Your task to perform on an android device: open app "Google Chrome" Image 0: 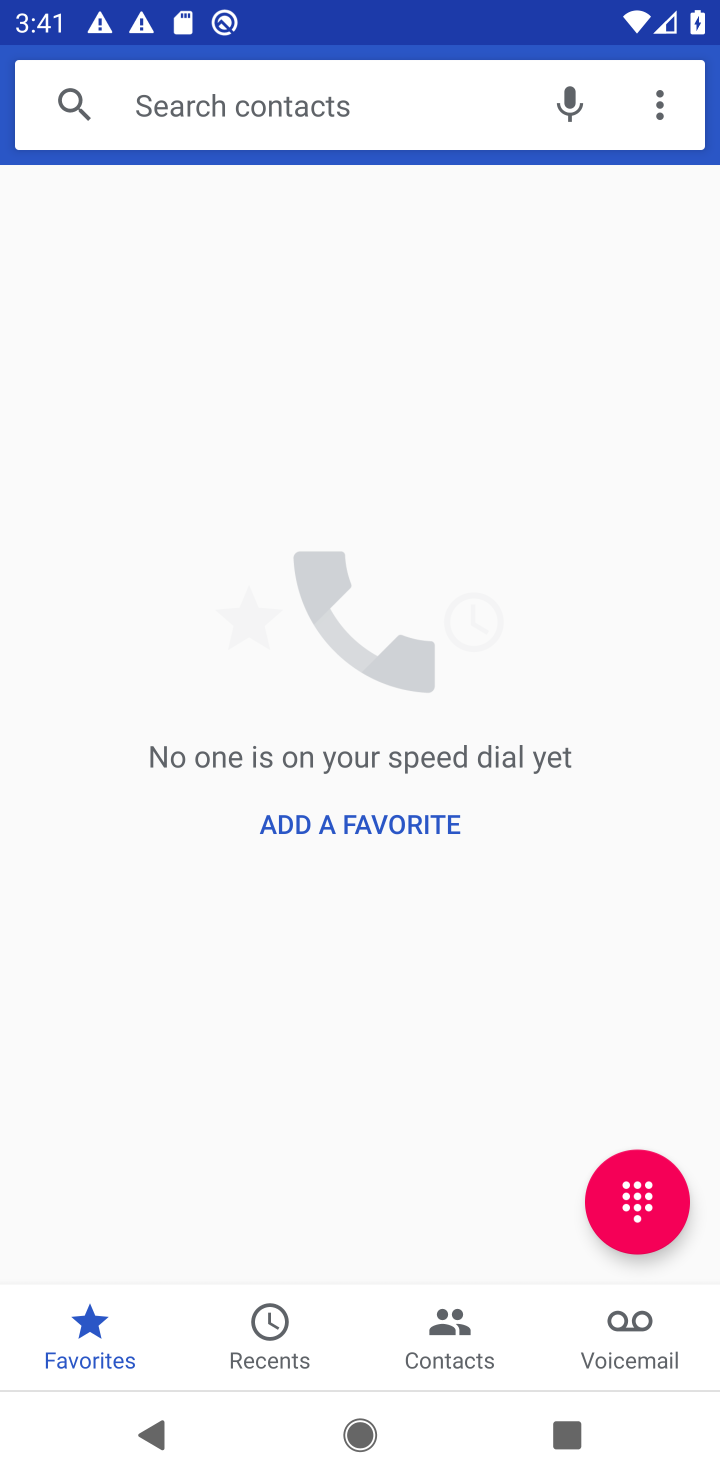
Step 0: press home button
Your task to perform on an android device: open app "Google Chrome" Image 1: 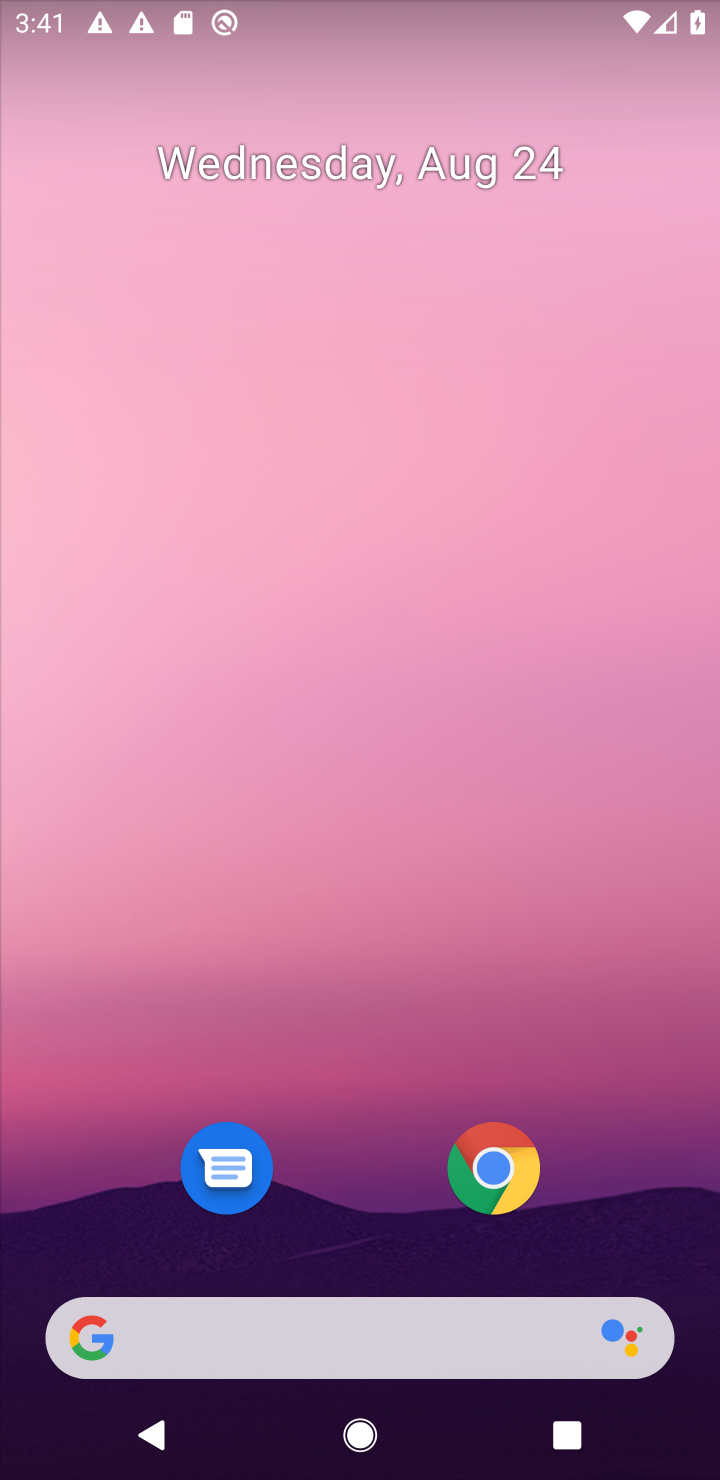
Step 1: click (484, 1178)
Your task to perform on an android device: open app "Google Chrome" Image 2: 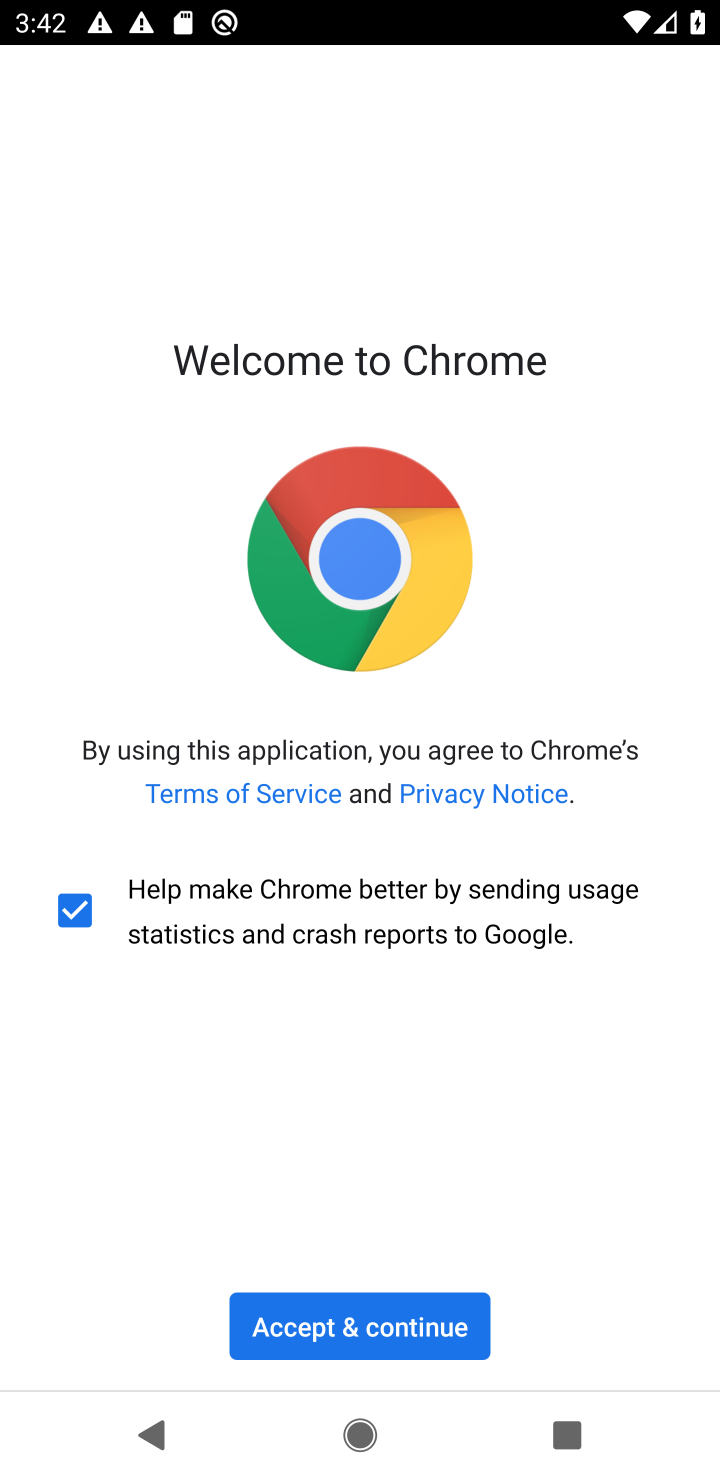
Step 2: click (354, 1340)
Your task to perform on an android device: open app "Google Chrome" Image 3: 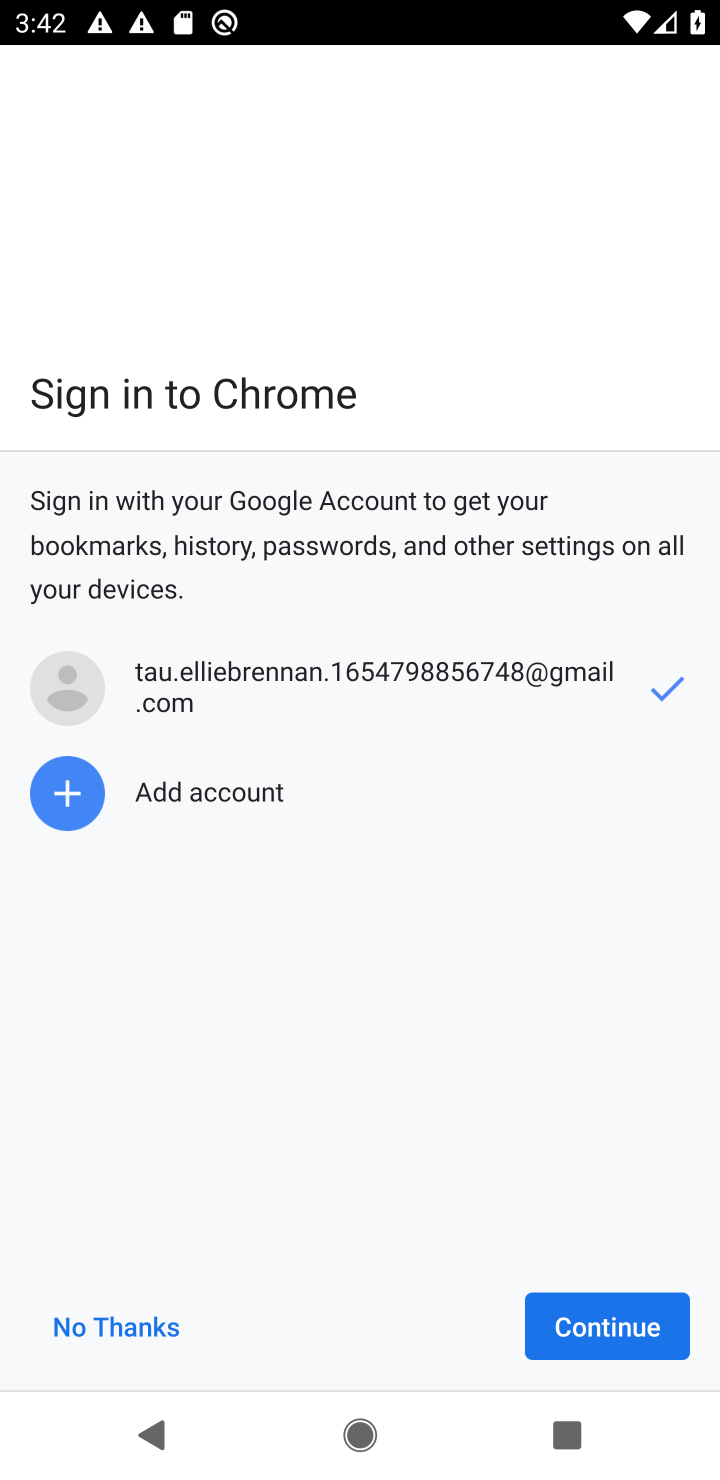
Step 3: click (623, 1300)
Your task to perform on an android device: open app "Google Chrome" Image 4: 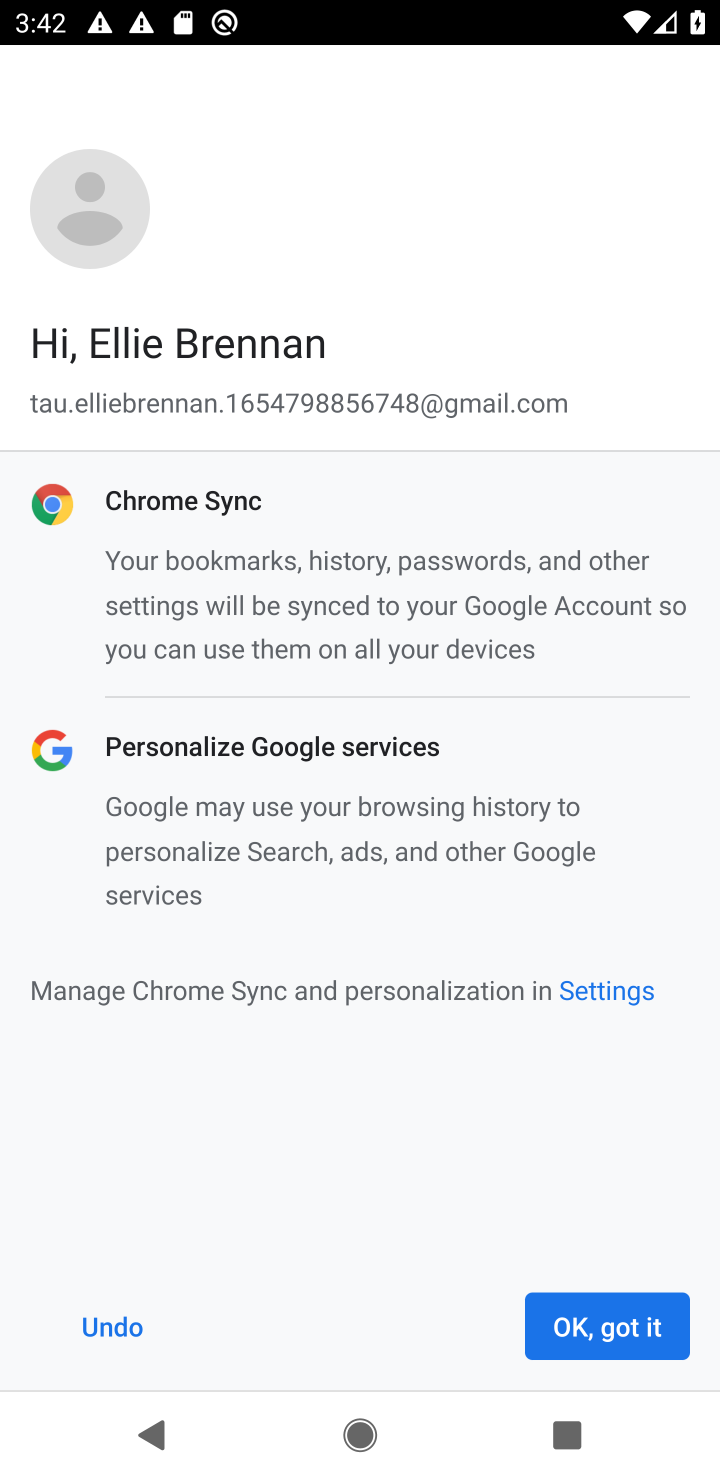
Step 4: click (597, 1318)
Your task to perform on an android device: open app "Google Chrome" Image 5: 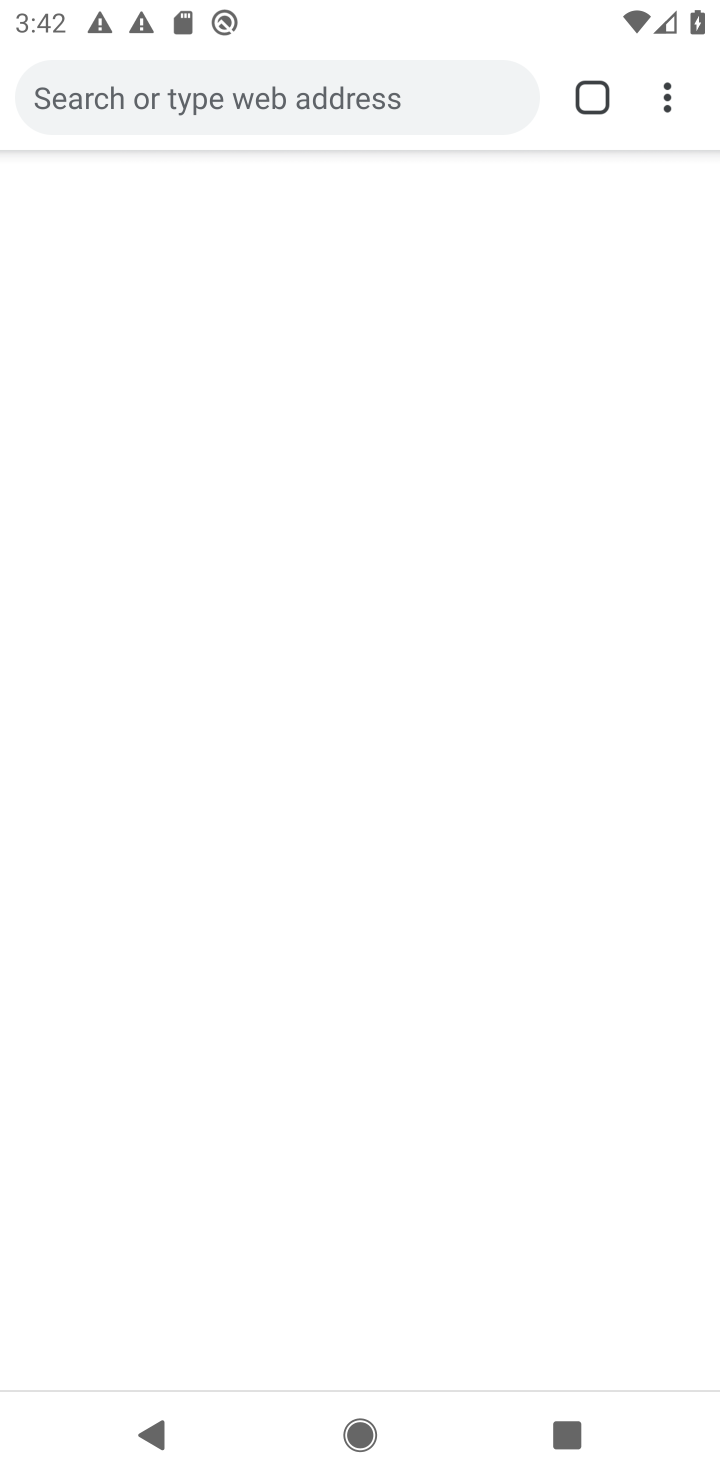
Step 5: task complete